Your task to perform on an android device: open app "Pluto TV - Live TV and Movies" (install if not already installed) Image 0: 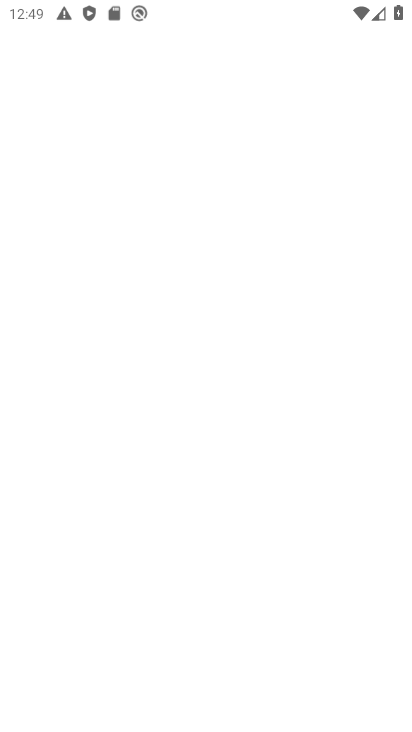
Step 0: press home button
Your task to perform on an android device: open app "Pluto TV - Live TV and Movies" (install if not already installed) Image 1: 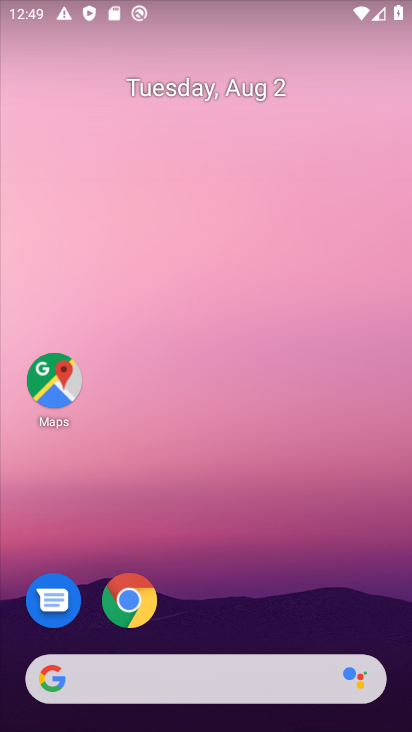
Step 1: drag from (224, 631) to (222, 19)
Your task to perform on an android device: open app "Pluto TV - Live TV and Movies" (install if not already installed) Image 2: 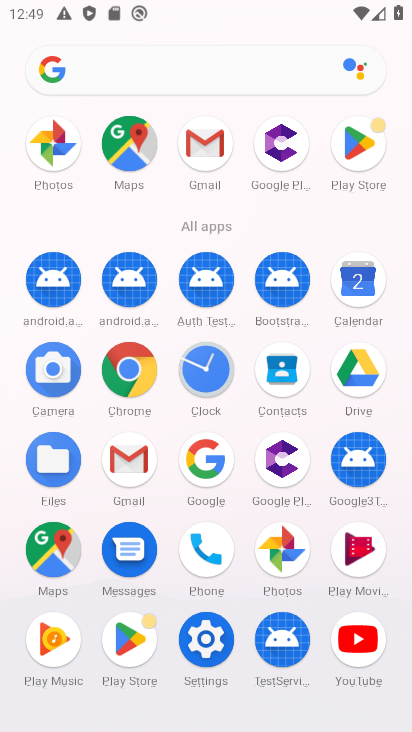
Step 2: click (126, 633)
Your task to perform on an android device: open app "Pluto TV - Live TV and Movies" (install if not already installed) Image 3: 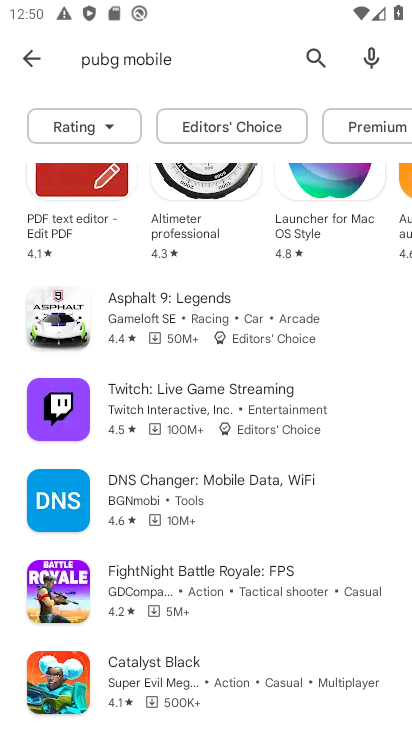
Step 3: click (312, 55)
Your task to perform on an android device: open app "Pluto TV - Live TV and Movies" (install if not already installed) Image 4: 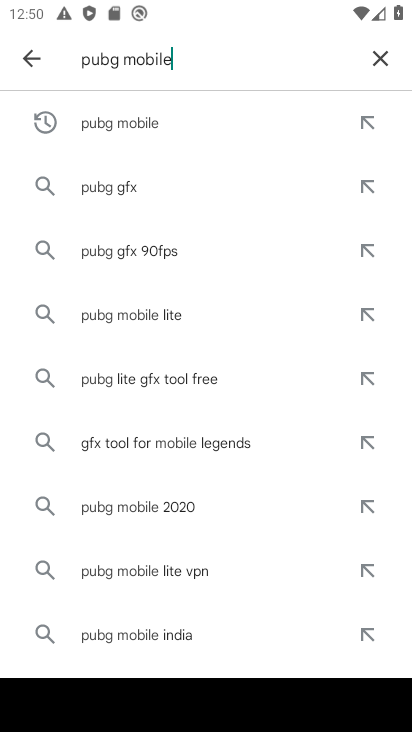
Step 4: click (377, 58)
Your task to perform on an android device: open app "Pluto TV - Live TV and Movies" (install if not already installed) Image 5: 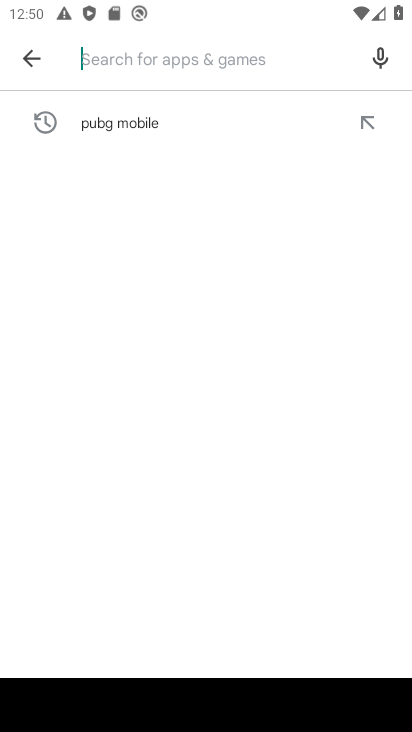
Step 5: type "Pluto TV - Live TV and Movies"
Your task to perform on an android device: open app "Pluto TV - Live TV and Movies" (install if not already installed) Image 6: 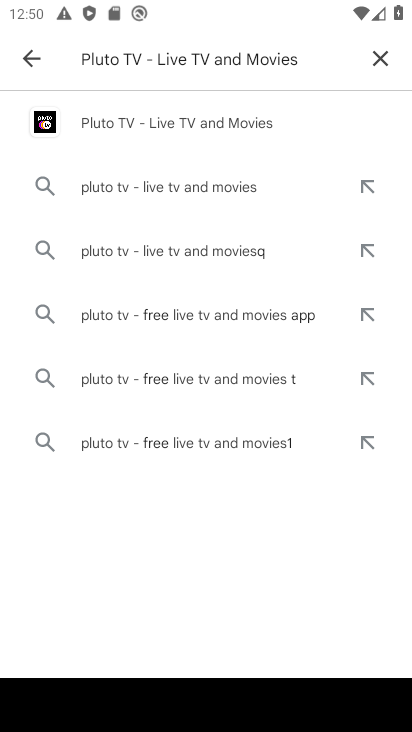
Step 6: click (139, 117)
Your task to perform on an android device: open app "Pluto TV - Live TV and Movies" (install if not already installed) Image 7: 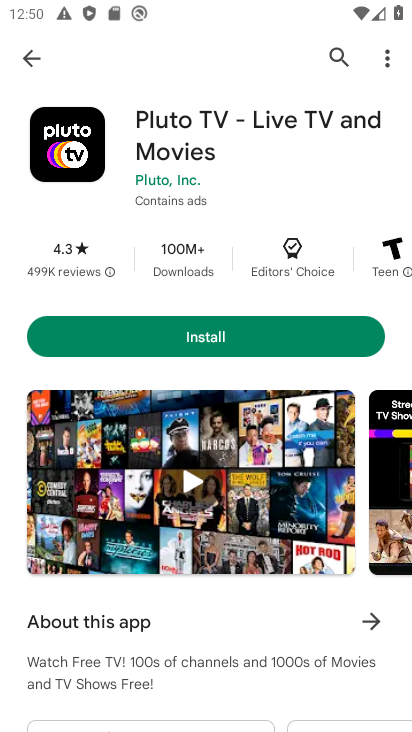
Step 7: click (201, 331)
Your task to perform on an android device: open app "Pluto TV - Live TV and Movies" (install if not already installed) Image 8: 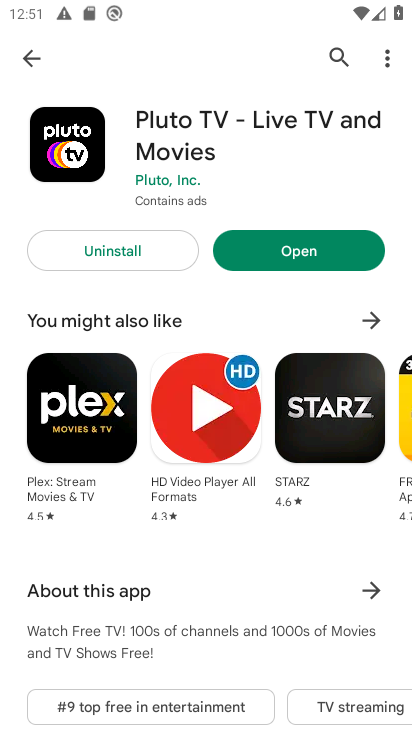
Step 8: click (292, 261)
Your task to perform on an android device: open app "Pluto TV - Live TV and Movies" (install if not already installed) Image 9: 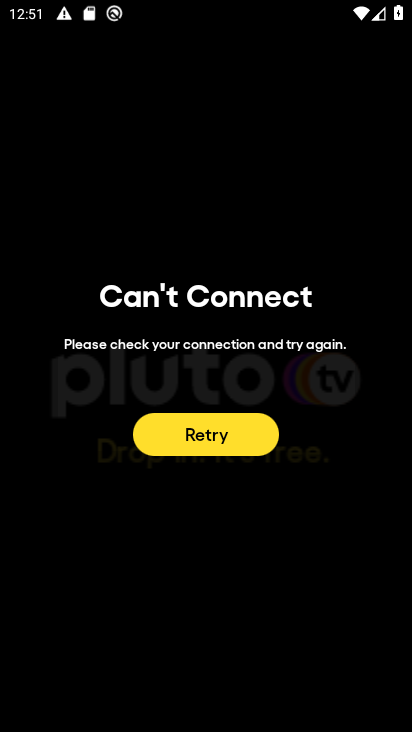
Step 9: click (206, 433)
Your task to perform on an android device: open app "Pluto TV - Live TV and Movies" (install if not already installed) Image 10: 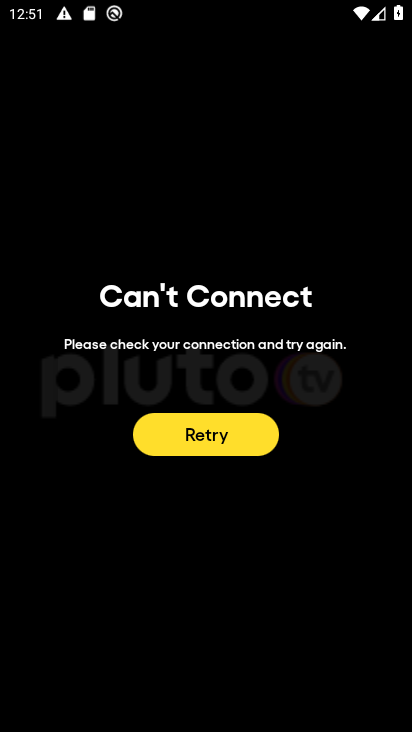
Step 10: task complete